Your task to perform on an android device: Go to internet settings Image 0: 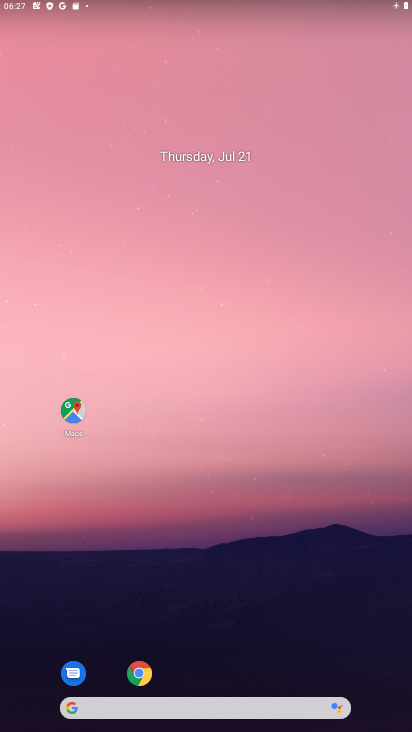
Step 0: drag from (204, 449) to (300, 187)
Your task to perform on an android device: Go to internet settings Image 1: 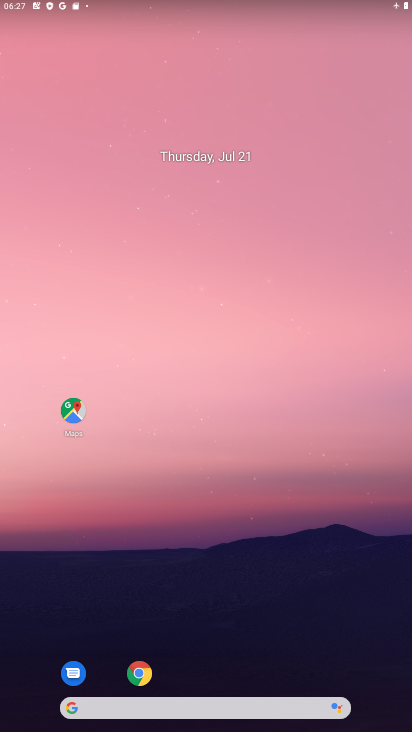
Step 1: drag from (194, 598) to (256, 31)
Your task to perform on an android device: Go to internet settings Image 2: 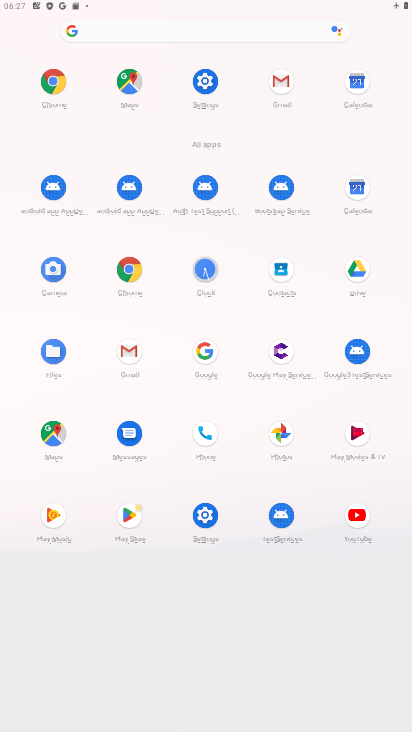
Step 2: click (203, 73)
Your task to perform on an android device: Go to internet settings Image 3: 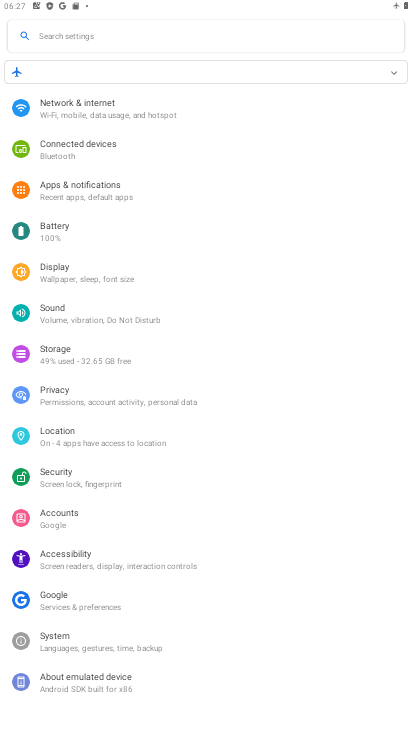
Step 3: click (116, 111)
Your task to perform on an android device: Go to internet settings Image 4: 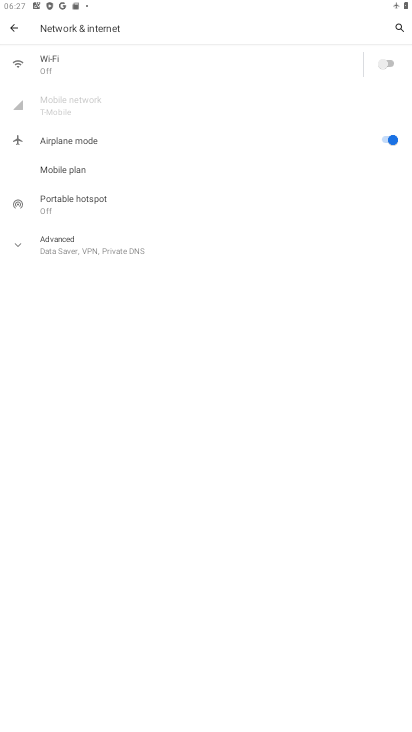
Step 4: task complete